Your task to perform on an android device: turn off smart reply in the gmail app Image 0: 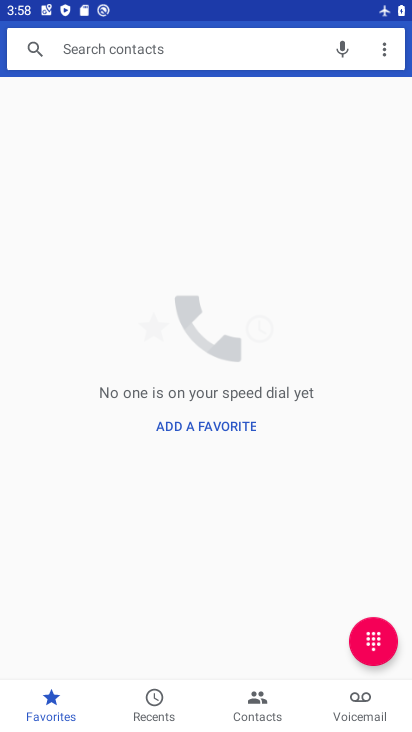
Step 0: press home button
Your task to perform on an android device: turn off smart reply in the gmail app Image 1: 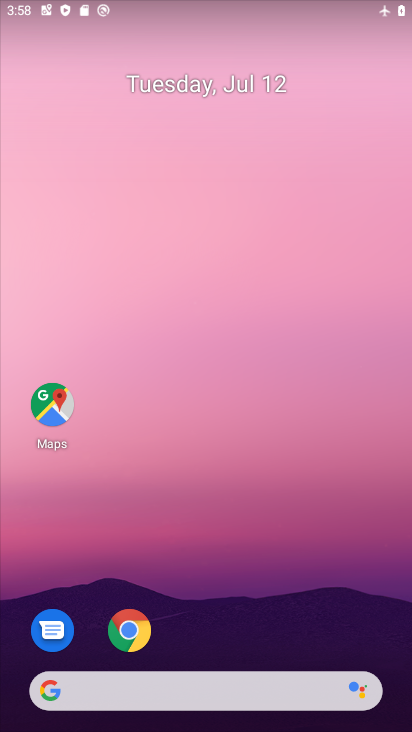
Step 1: drag from (309, 680) to (403, 271)
Your task to perform on an android device: turn off smart reply in the gmail app Image 2: 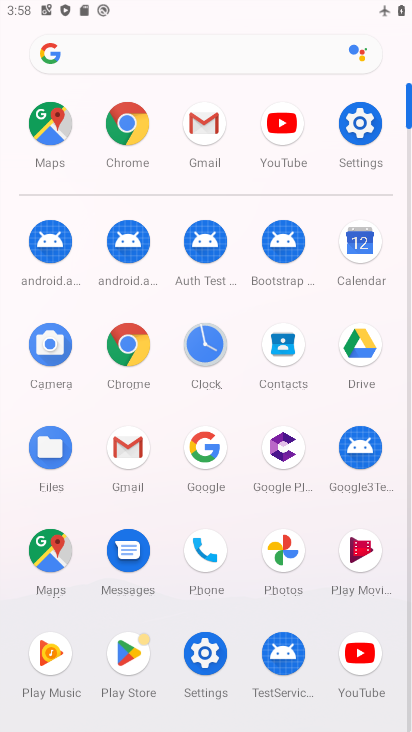
Step 2: click (130, 446)
Your task to perform on an android device: turn off smart reply in the gmail app Image 3: 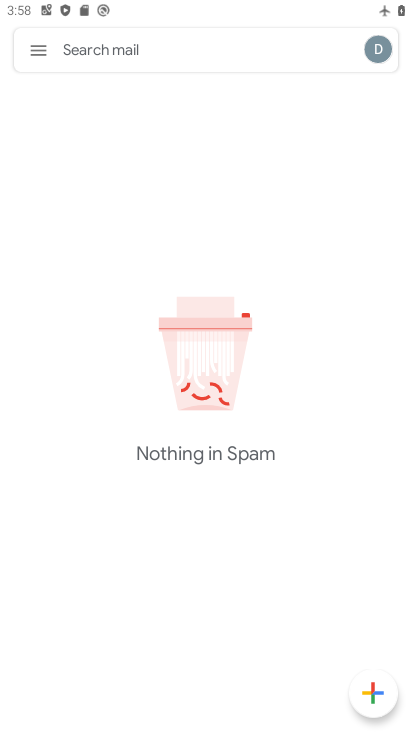
Step 3: click (37, 47)
Your task to perform on an android device: turn off smart reply in the gmail app Image 4: 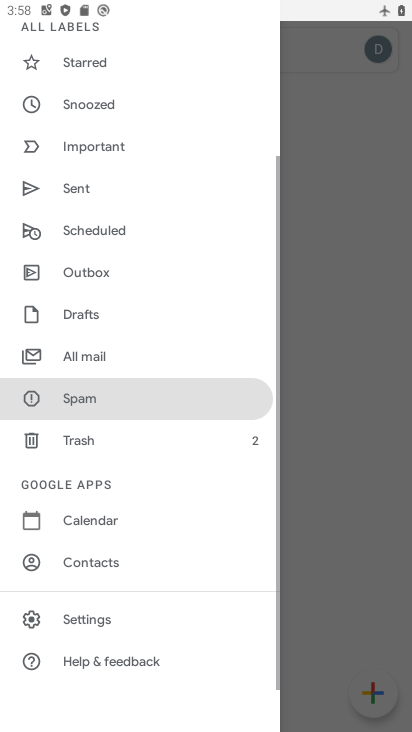
Step 4: click (124, 622)
Your task to perform on an android device: turn off smart reply in the gmail app Image 5: 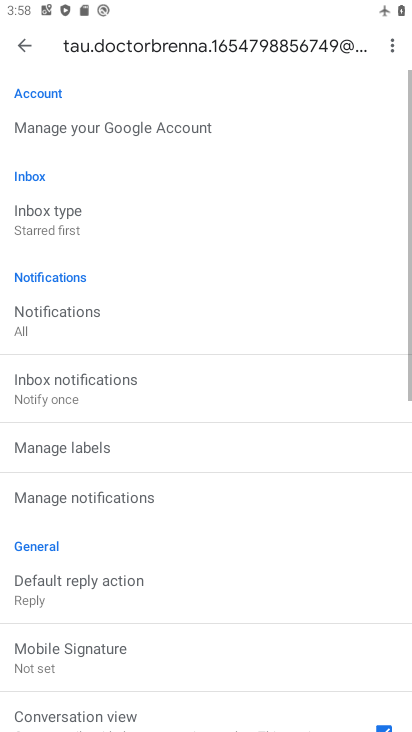
Step 5: drag from (152, 652) to (201, 120)
Your task to perform on an android device: turn off smart reply in the gmail app Image 6: 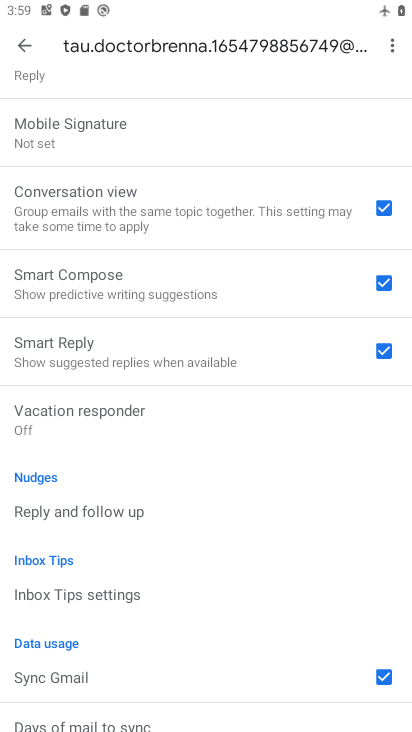
Step 6: click (194, 353)
Your task to perform on an android device: turn off smart reply in the gmail app Image 7: 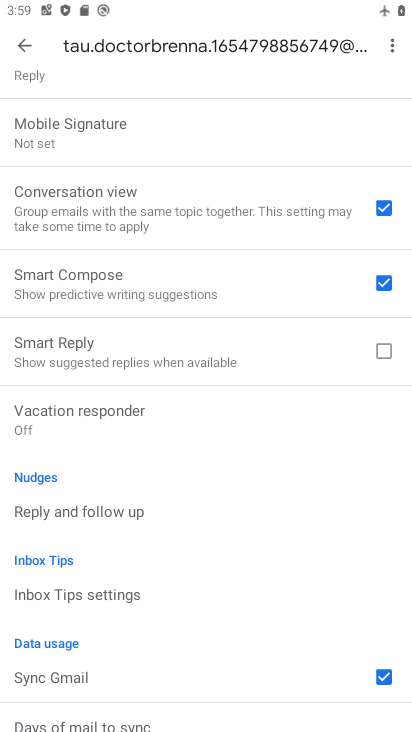
Step 7: task complete